Your task to perform on an android device: Clear the shopping cart on target. Search for "dell xps" on target, select the first entry, add it to the cart, then select checkout. Image 0: 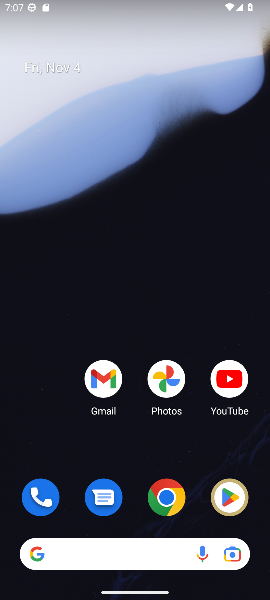
Step 0: click (170, 501)
Your task to perform on an android device: Clear the shopping cart on target. Search for "dell xps" on target, select the first entry, add it to the cart, then select checkout. Image 1: 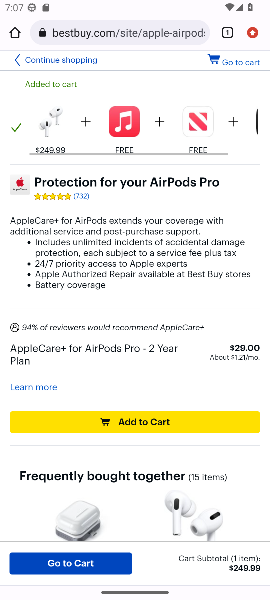
Step 1: click (126, 38)
Your task to perform on an android device: Clear the shopping cart on target. Search for "dell xps" on target, select the first entry, add it to the cart, then select checkout. Image 2: 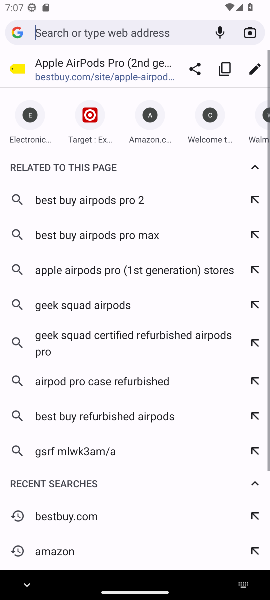
Step 2: click (89, 130)
Your task to perform on an android device: Clear the shopping cart on target. Search for "dell xps" on target, select the first entry, add it to the cart, then select checkout. Image 3: 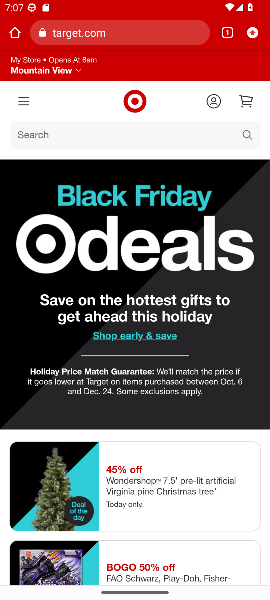
Step 3: click (243, 99)
Your task to perform on an android device: Clear the shopping cart on target. Search for "dell xps" on target, select the first entry, add it to the cart, then select checkout. Image 4: 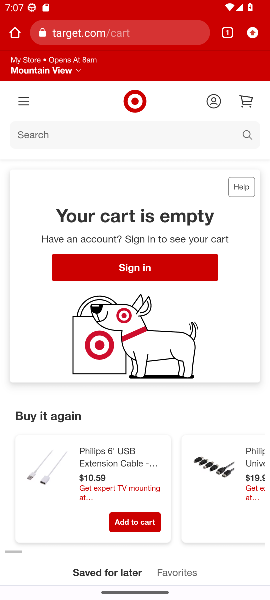
Step 4: click (244, 135)
Your task to perform on an android device: Clear the shopping cart on target. Search for "dell xps" on target, select the first entry, add it to the cart, then select checkout. Image 5: 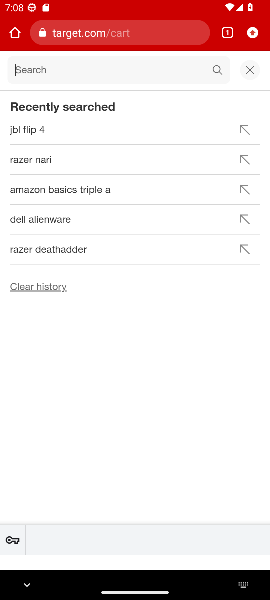
Step 5: type "dell xps"
Your task to perform on an android device: Clear the shopping cart on target. Search for "dell xps" on target, select the first entry, add it to the cart, then select checkout. Image 6: 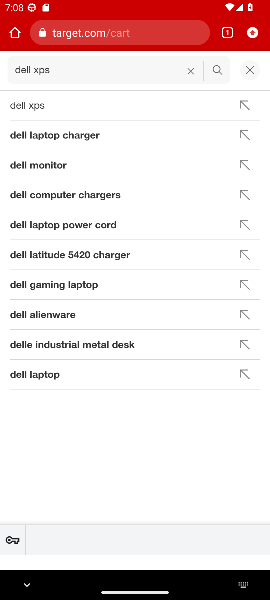
Step 6: click (50, 110)
Your task to perform on an android device: Clear the shopping cart on target. Search for "dell xps" on target, select the first entry, add it to the cart, then select checkout. Image 7: 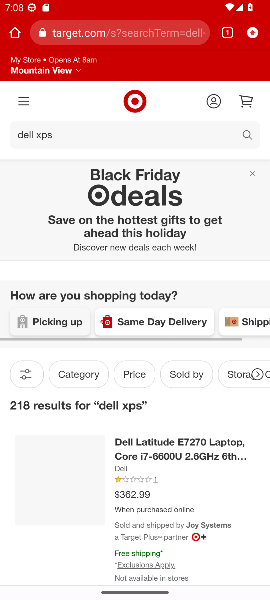
Step 7: task complete